Your task to perform on an android device: Open the web browser Image 0: 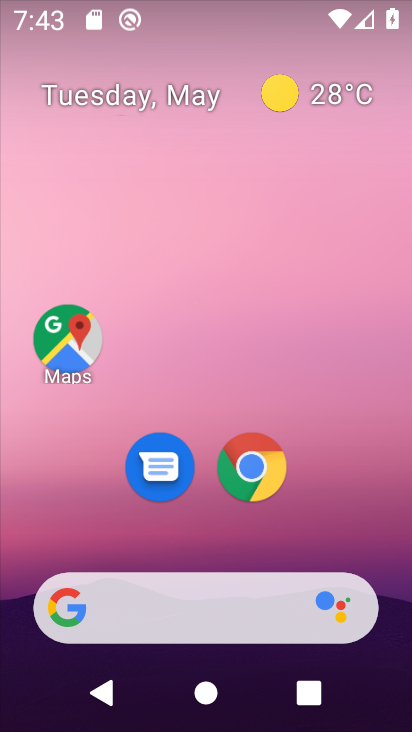
Step 0: click (250, 469)
Your task to perform on an android device: Open the web browser Image 1: 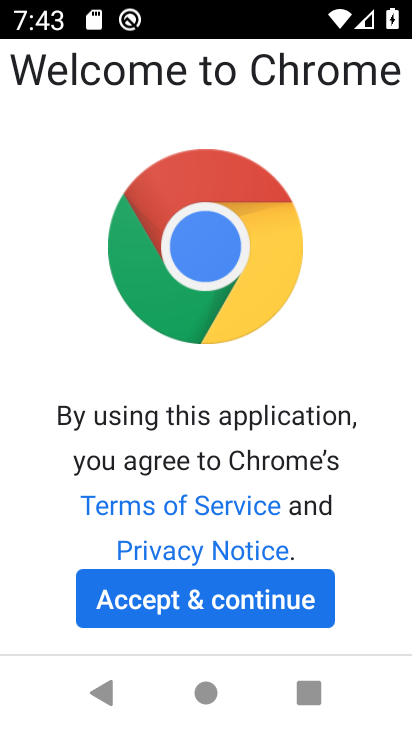
Step 1: click (278, 609)
Your task to perform on an android device: Open the web browser Image 2: 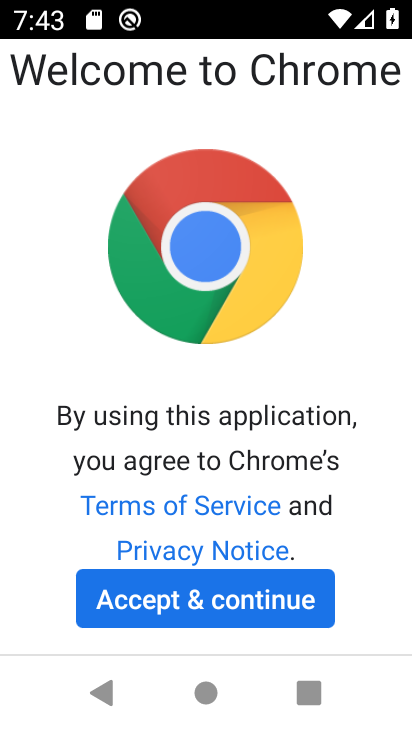
Step 2: click (275, 603)
Your task to perform on an android device: Open the web browser Image 3: 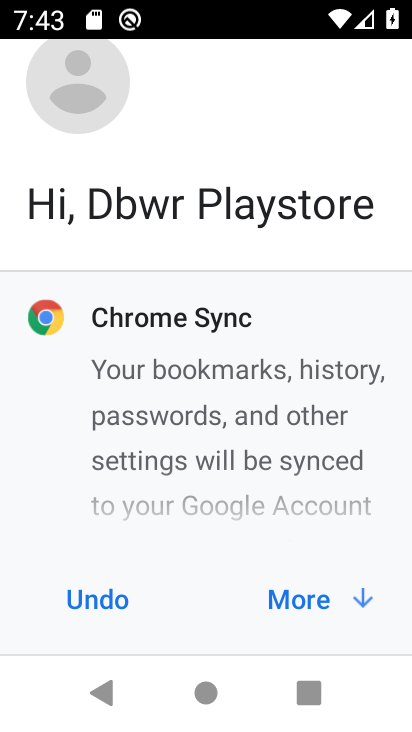
Step 3: click (283, 601)
Your task to perform on an android device: Open the web browser Image 4: 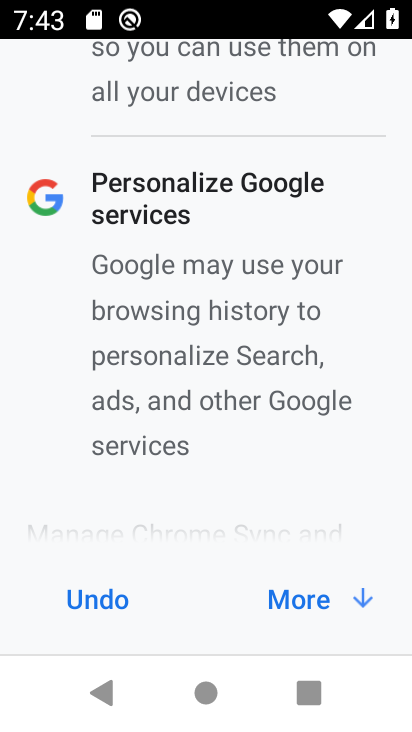
Step 4: click (291, 598)
Your task to perform on an android device: Open the web browser Image 5: 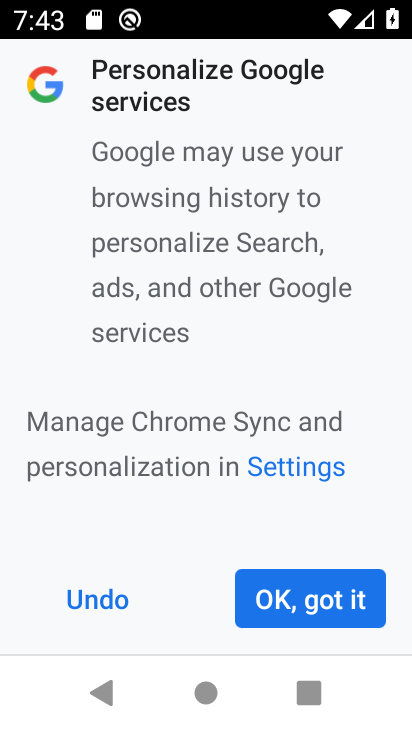
Step 5: click (293, 597)
Your task to perform on an android device: Open the web browser Image 6: 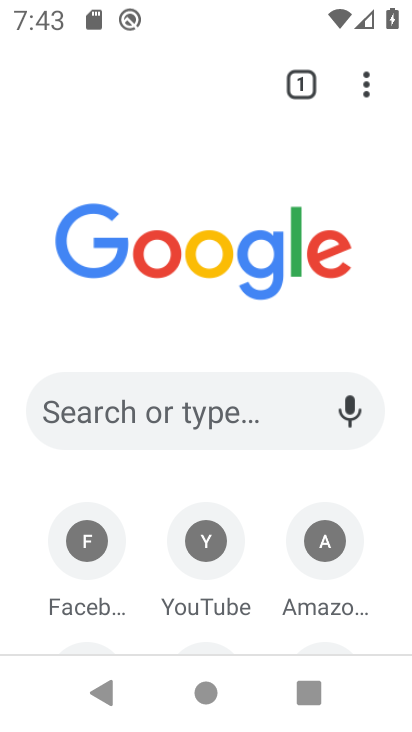
Step 6: task complete